Your task to perform on an android device: Search for "asus rog" on bestbuy, select the first entry, and add it to the cart. Image 0: 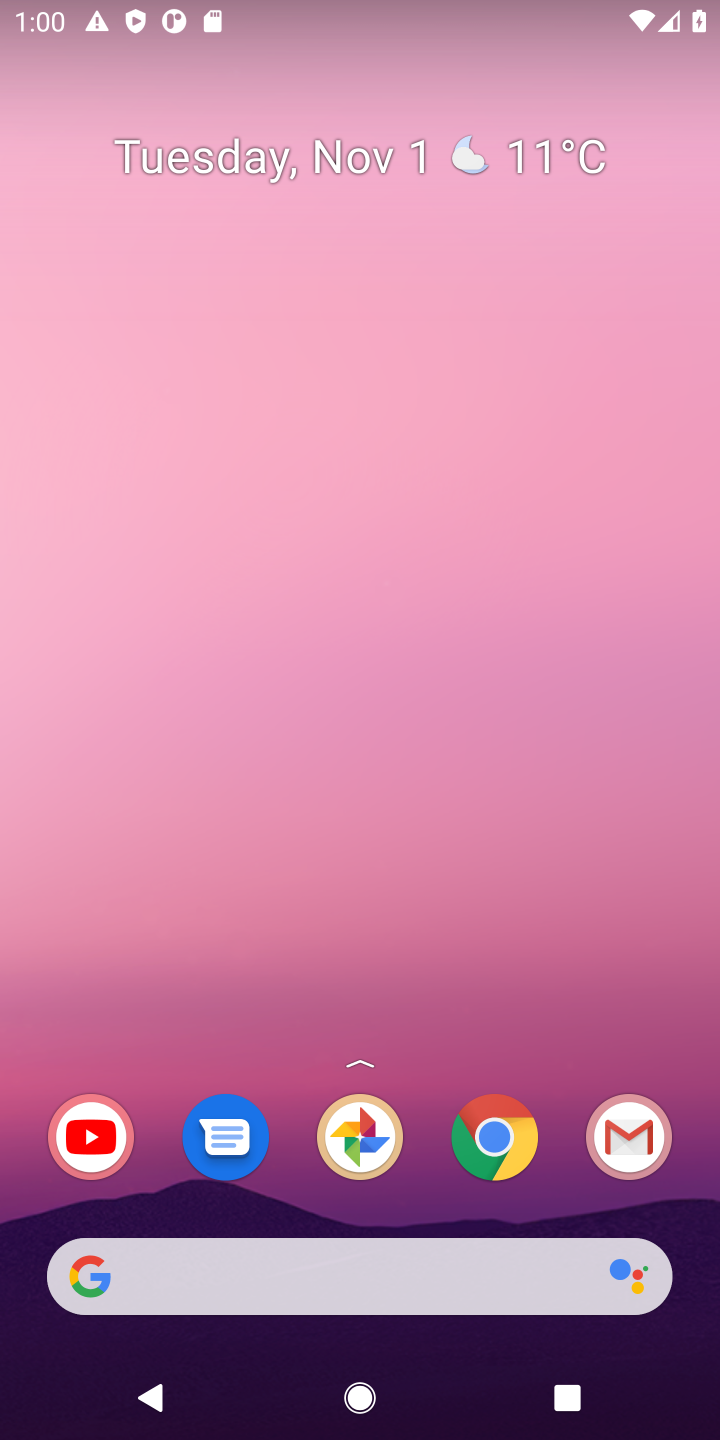
Step 0: click (498, 1136)
Your task to perform on an android device: Search for "asus rog" on bestbuy, select the first entry, and add it to the cart. Image 1: 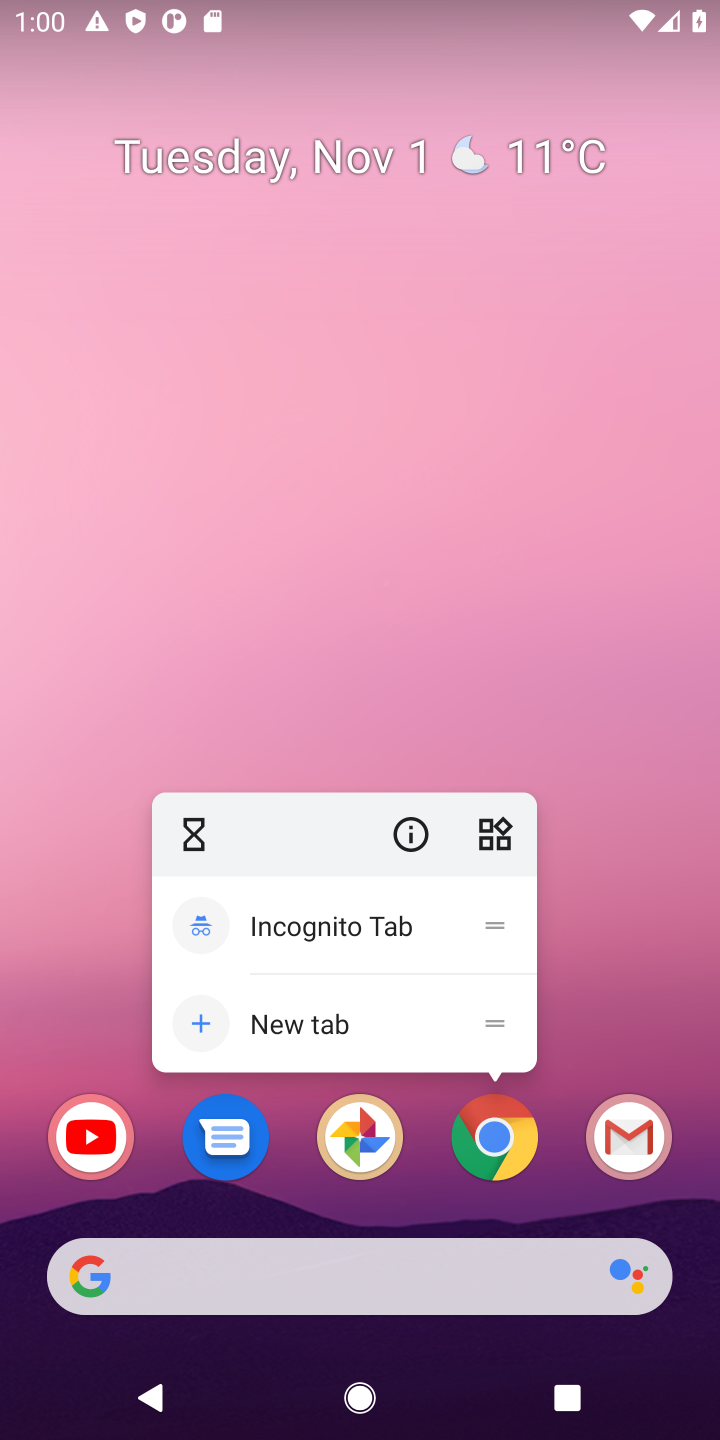
Step 1: click (498, 1136)
Your task to perform on an android device: Search for "asus rog" on bestbuy, select the first entry, and add it to the cart. Image 2: 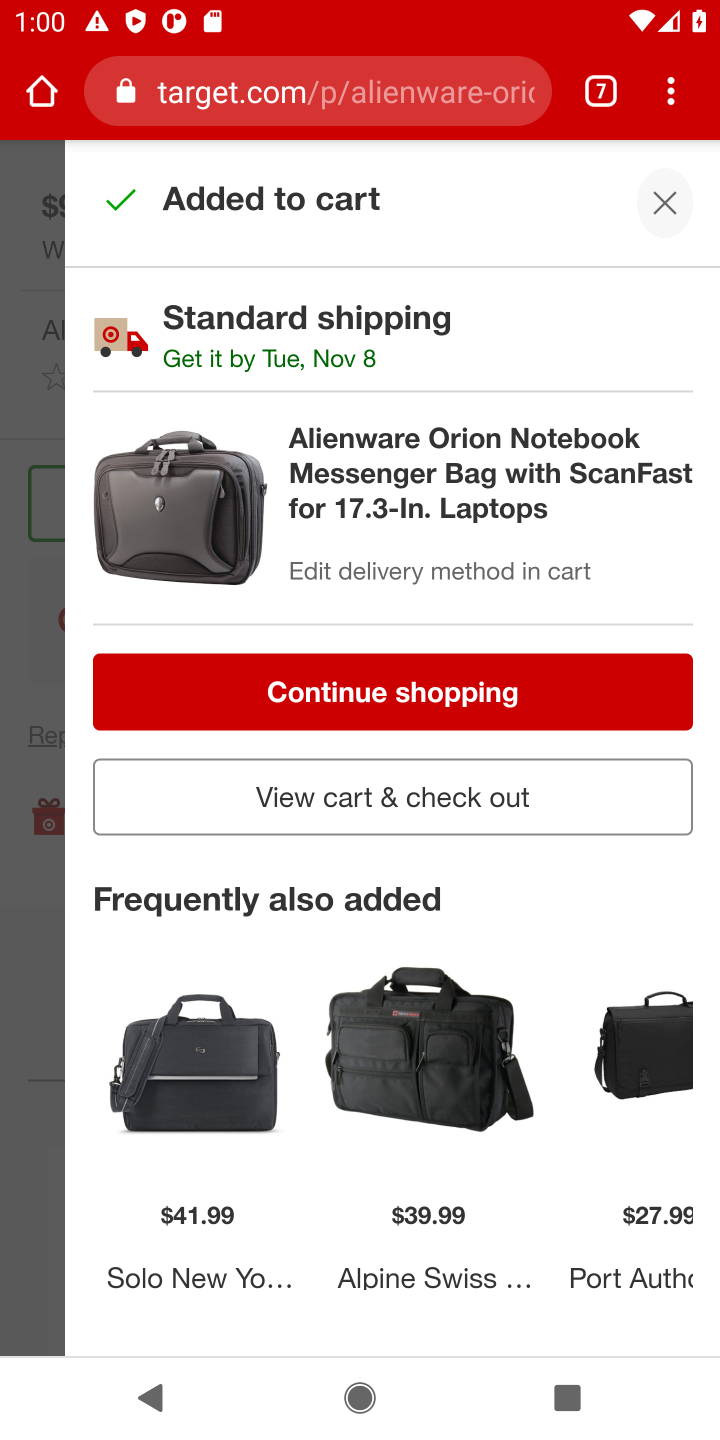
Step 2: click (599, 94)
Your task to perform on an android device: Search for "asus rog" on bestbuy, select the first entry, and add it to the cart. Image 3: 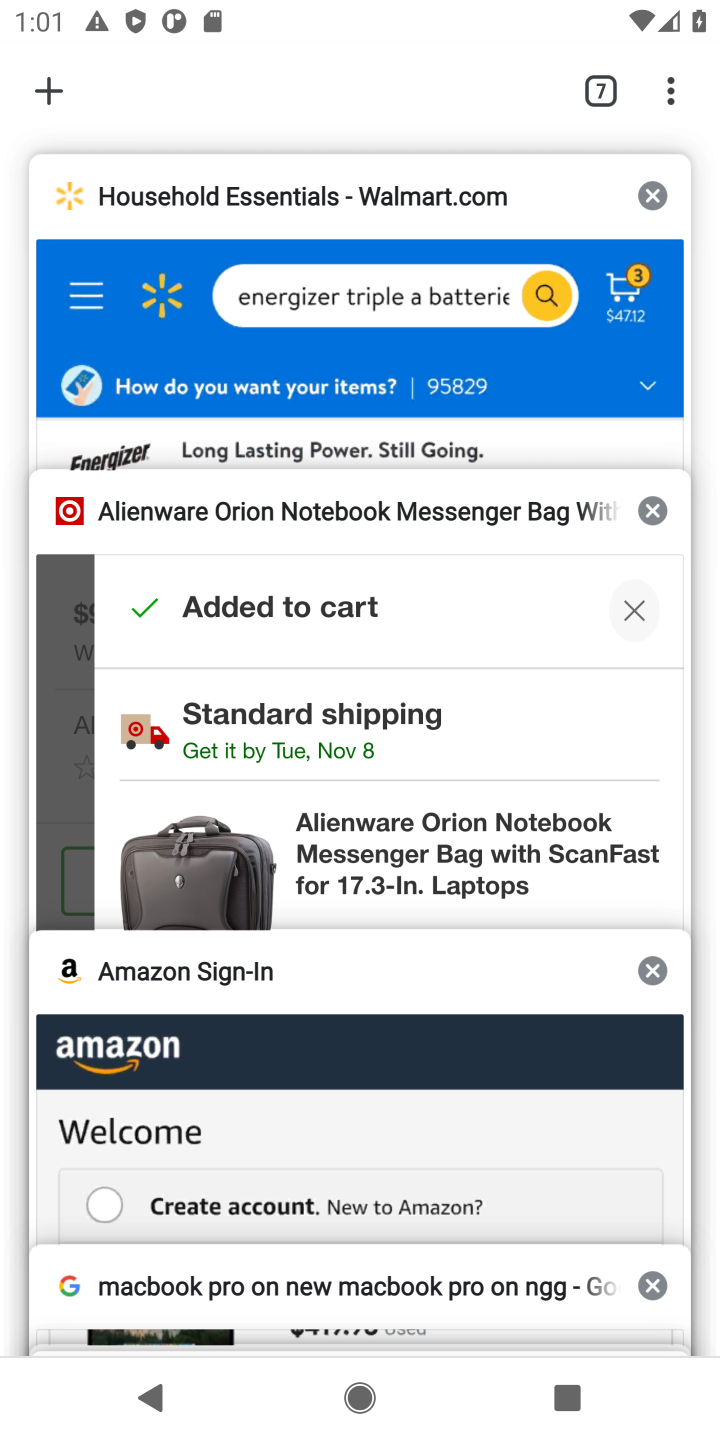
Step 3: drag from (342, 1182) to (507, 410)
Your task to perform on an android device: Search for "asus rog" on bestbuy, select the first entry, and add it to the cart. Image 4: 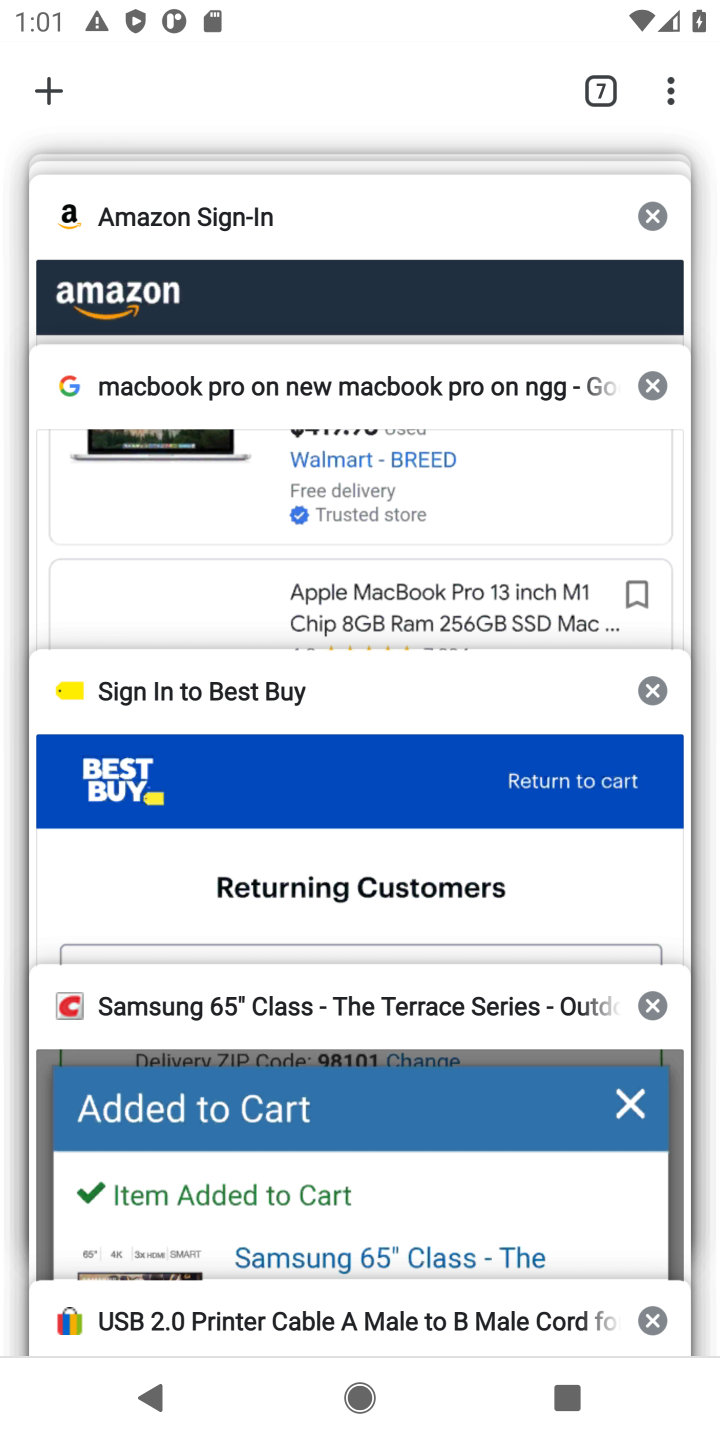
Step 4: click (365, 815)
Your task to perform on an android device: Search for "asus rog" on bestbuy, select the first entry, and add it to the cart. Image 5: 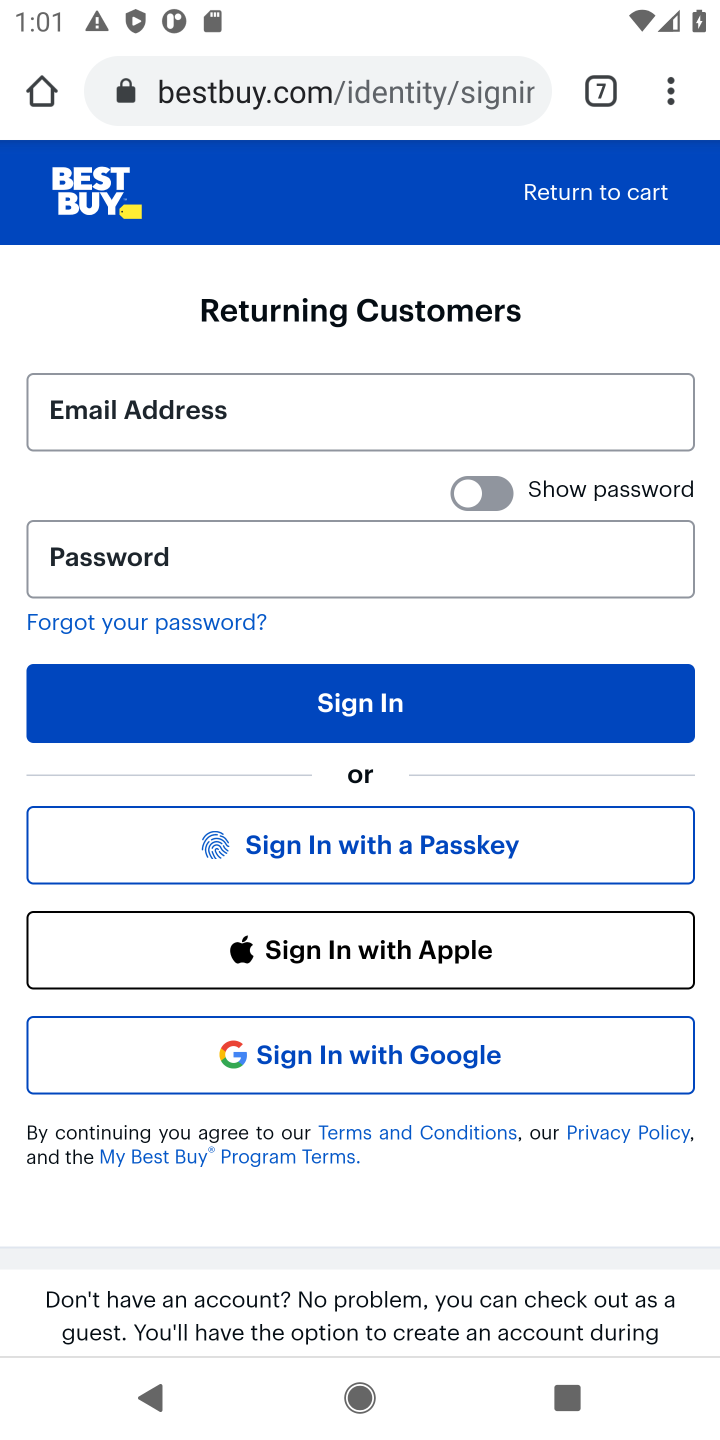
Step 5: click (617, 199)
Your task to perform on an android device: Search for "asus rog" on bestbuy, select the first entry, and add it to the cart. Image 6: 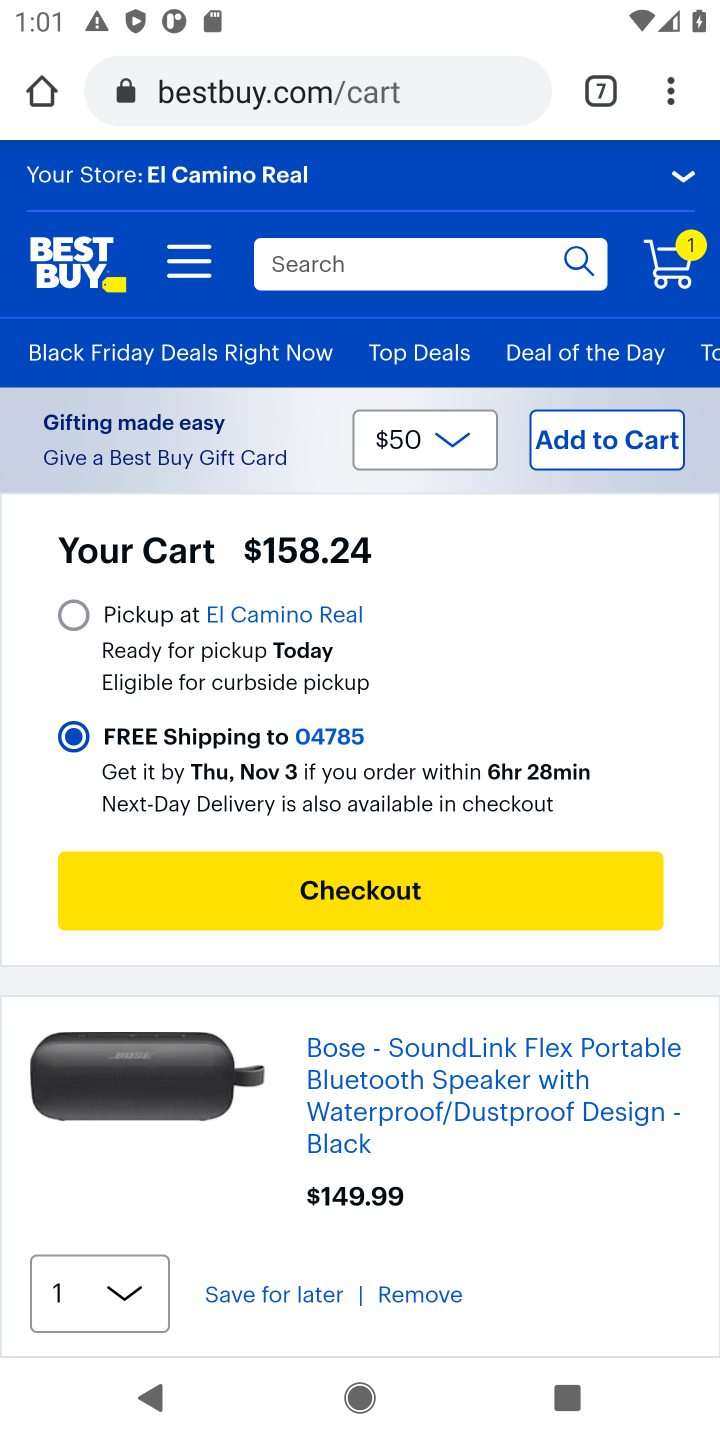
Step 6: click (347, 248)
Your task to perform on an android device: Search for "asus rog" on bestbuy, select the first entry, and add it to the cart. Image 7: 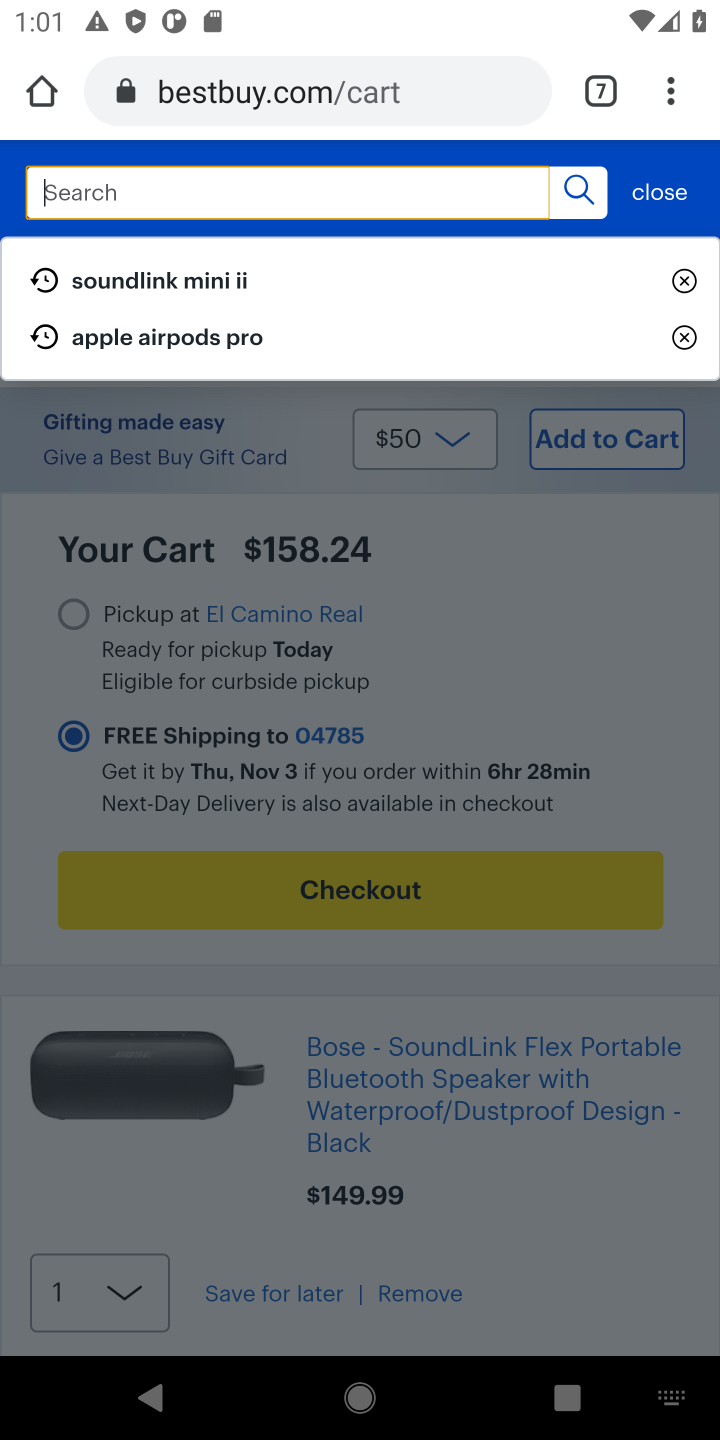
Step 7: type "asus rog"
Your task to perform on an android device: Search for "asus rog" on bestbuy, select the first entry, and add it to the cart. Image 8: 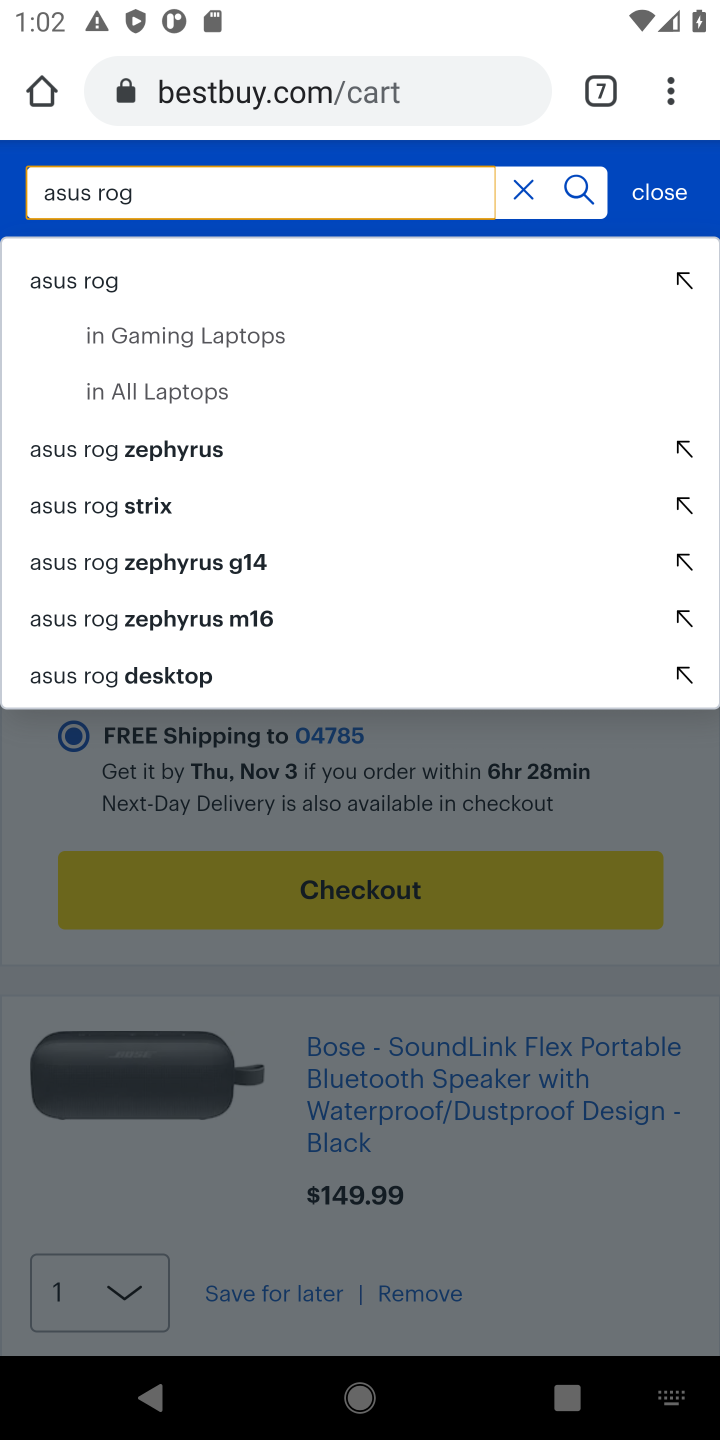
Step 8: click (68, 282)
Your task to perform on an android device: Search for "asus rog" on bestbuy, select the first entry, and add it to the cart. Image 9: 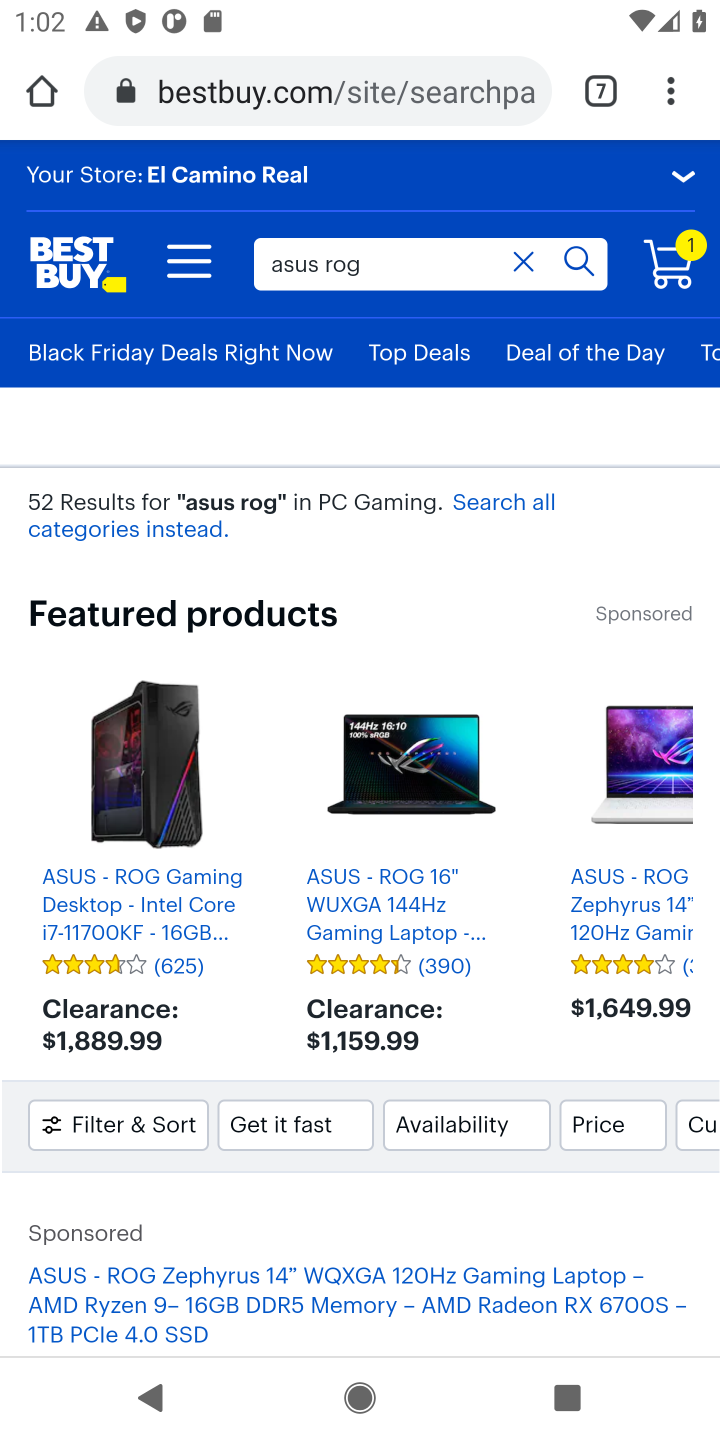
Step 9: click (100, 927)
Your task to perform on an android device: Search for "asus rog" on bestbuy, select the first entry, and add it to the cart. Image 10: 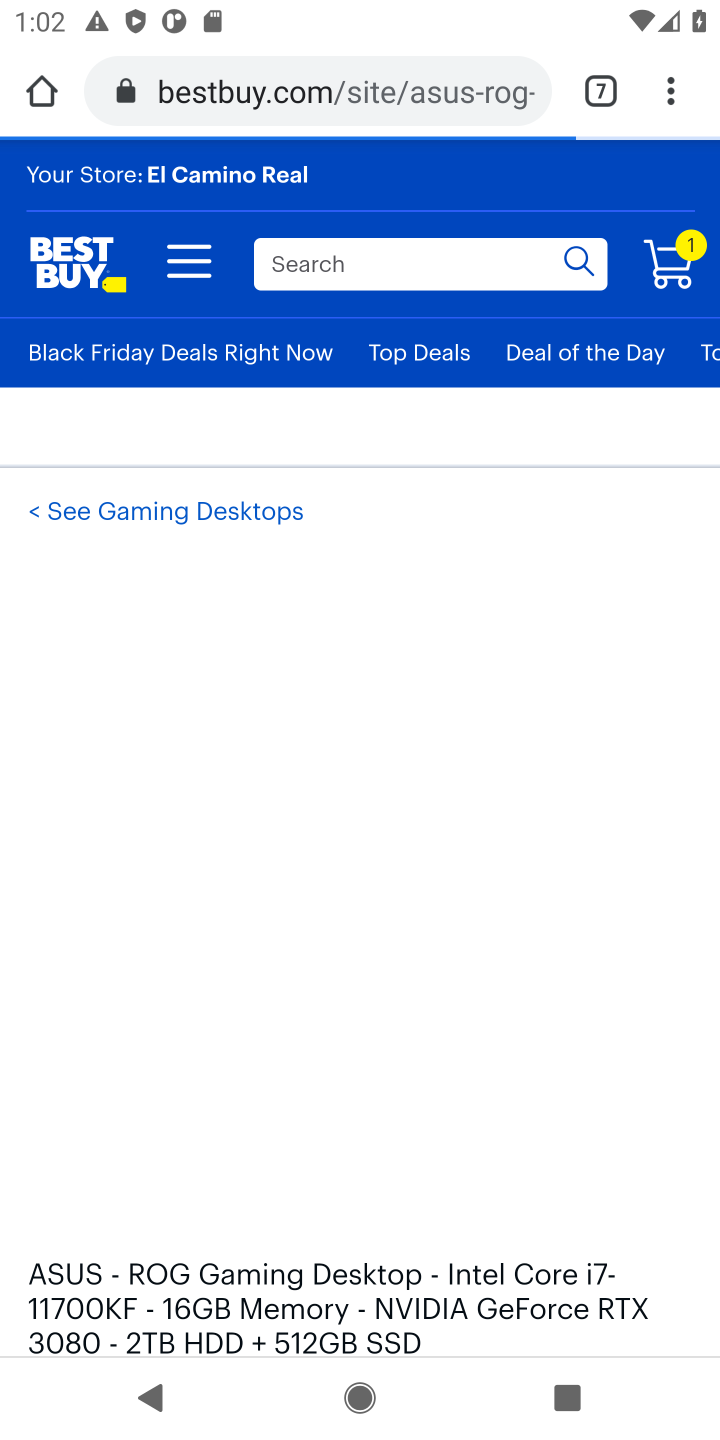
Step 10: drag from (319, 1345) to (664, 529)
Your task to perform on an android device: Search for "asus rog" on bestbuy, select the first entry, and add it to the cart. Image 11: 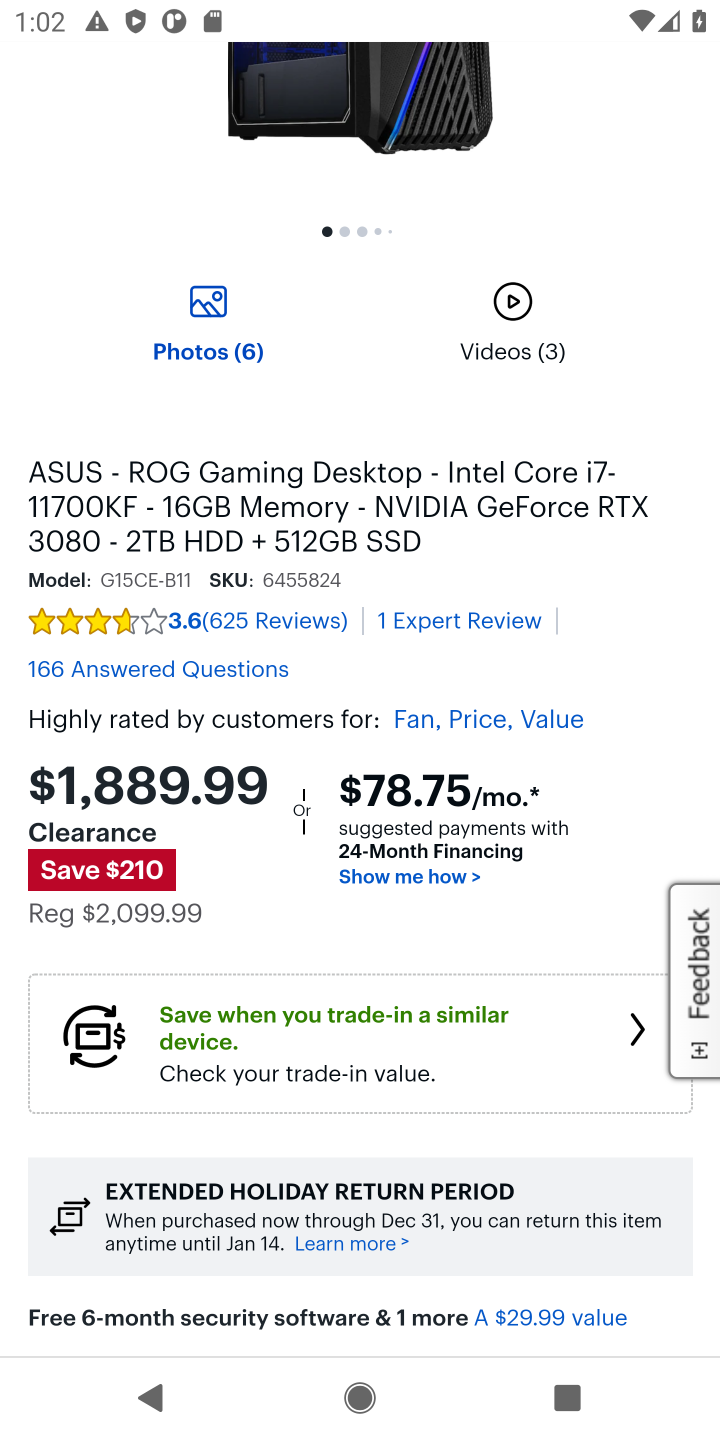
Step 11: drag from (502, 1110) to (533, 181)
Your task to perform on an android device: Search for "asus rog" on bestbuy, select the first entry, and add it to the cart. Image 12: 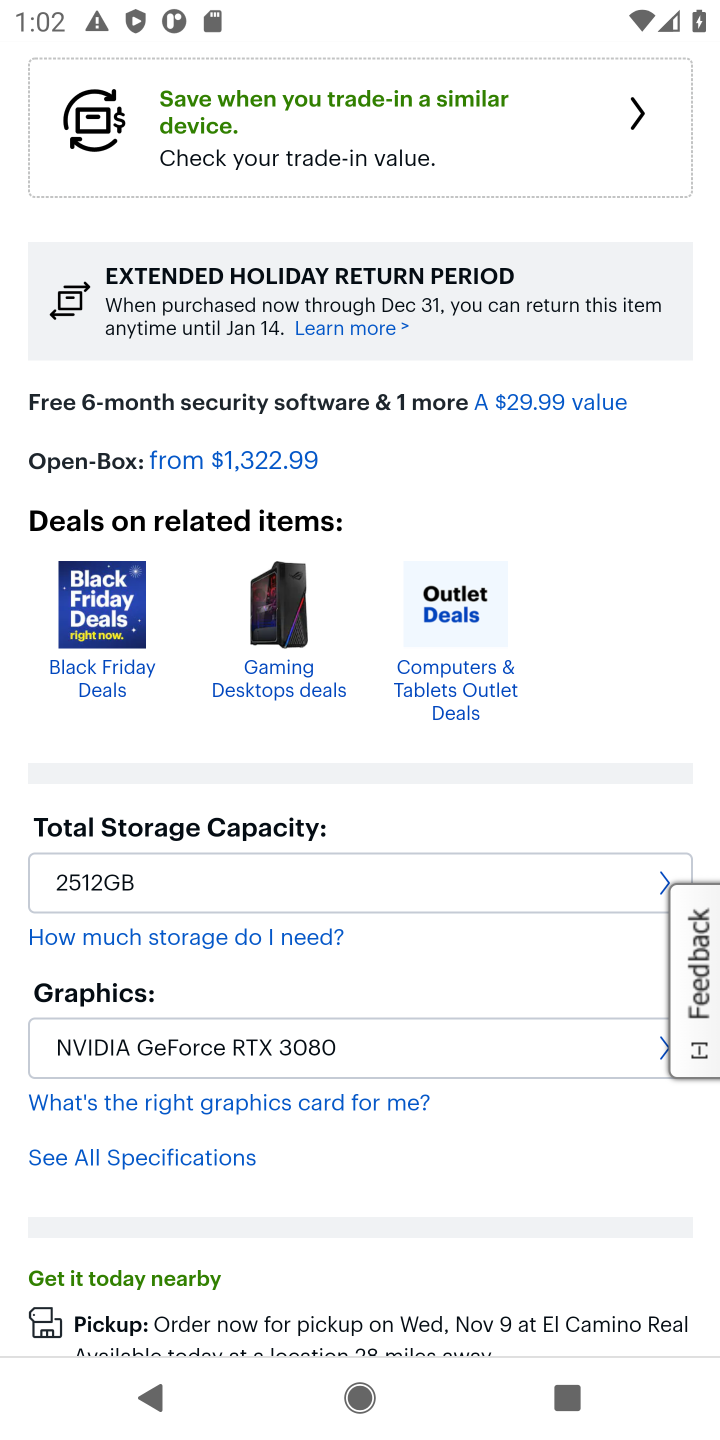
Step 12: drag from (404, 1173) to (453, 109)
Your task to perform on an android device: Search for "asus rog" on bestbuy, select the first entry, and add it to the cart. Image 13: 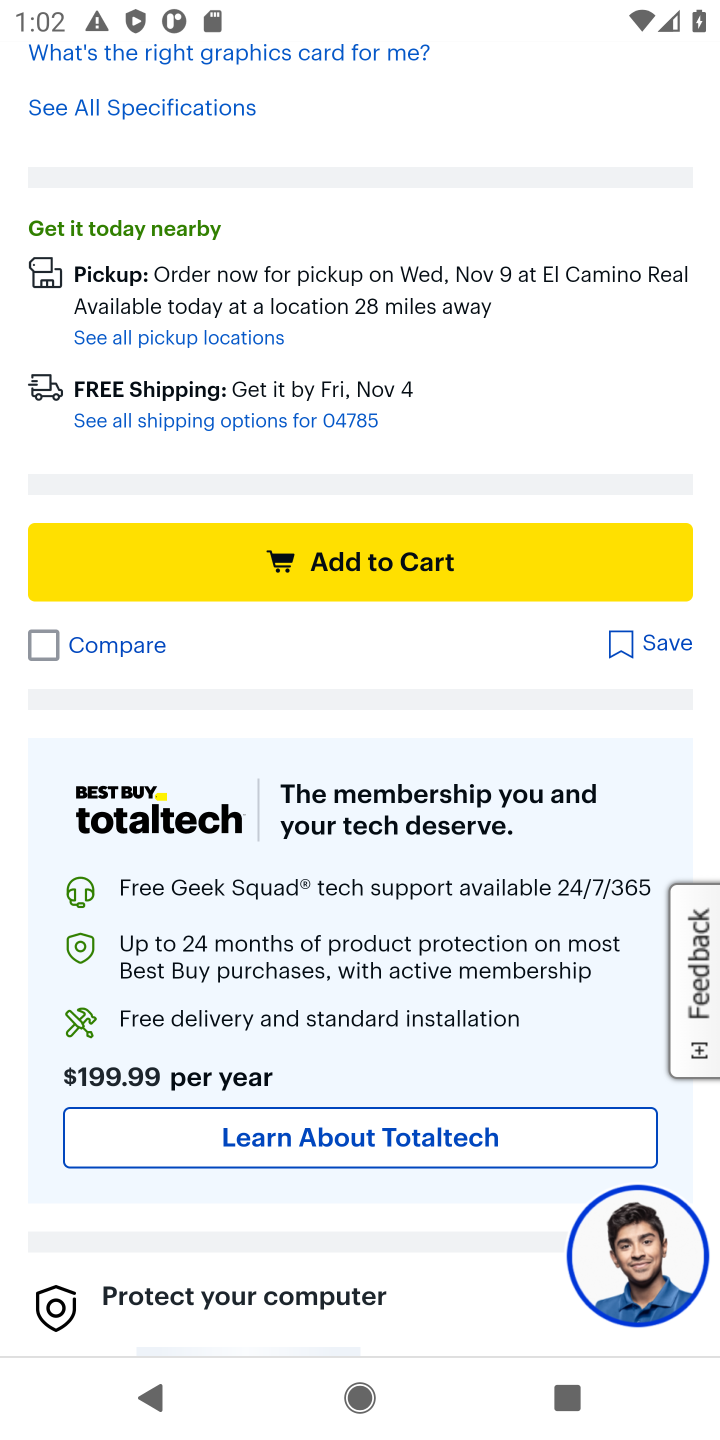
Step 13: click (413, 557)
Your task to perform on an android device: Search for "asus rog" on bestbuy, select the first entry, and add it to the cart. Image 14: 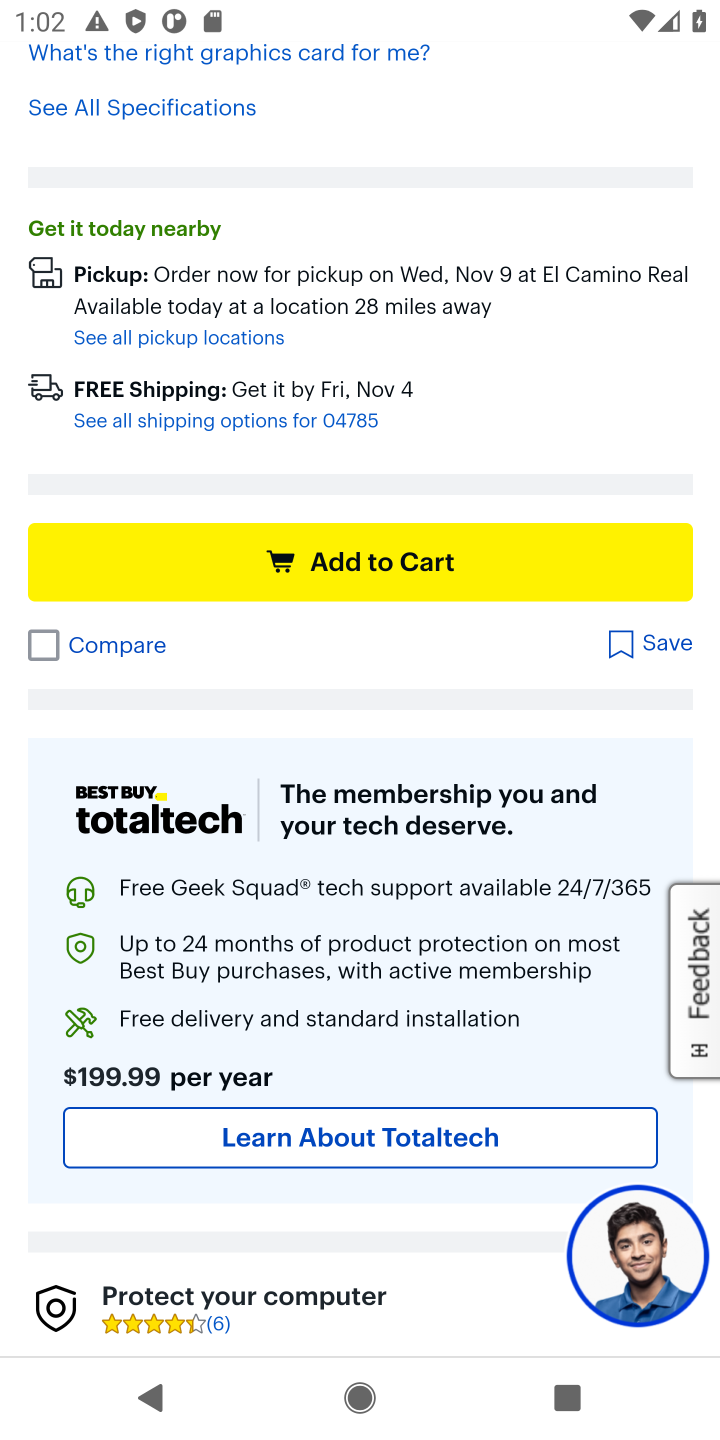
Step 14: task complete